Your task to perform on an android device: add a label to a message in the gmail app Image 0: 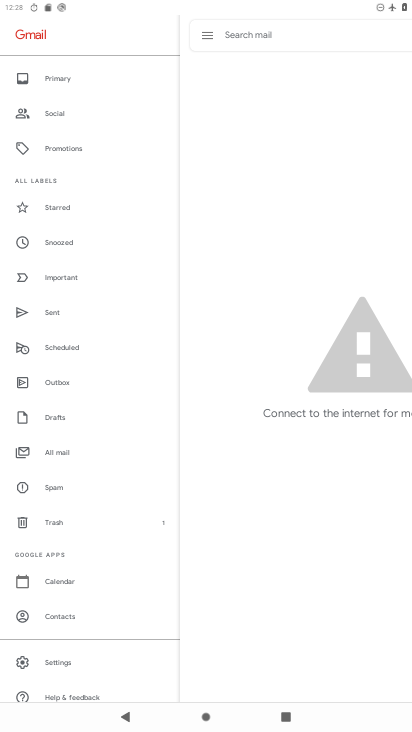
Step 0: click (54, 452)
Your task to perform on an android device: add a label to a message in the gmail app Image 1: 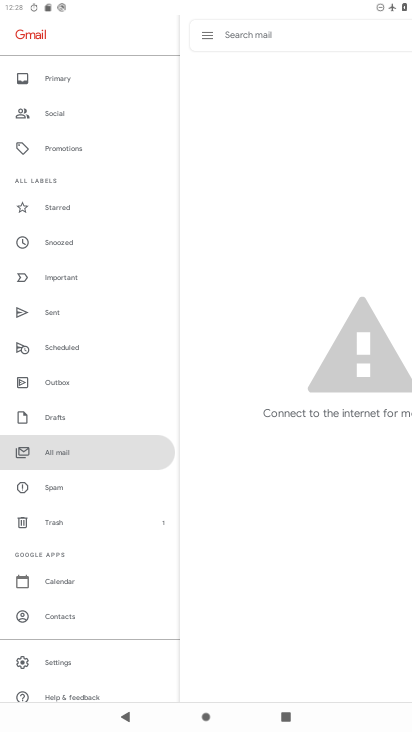
Step 1: task complete